Your task to perform on an android device: turn off wifi Image 0: 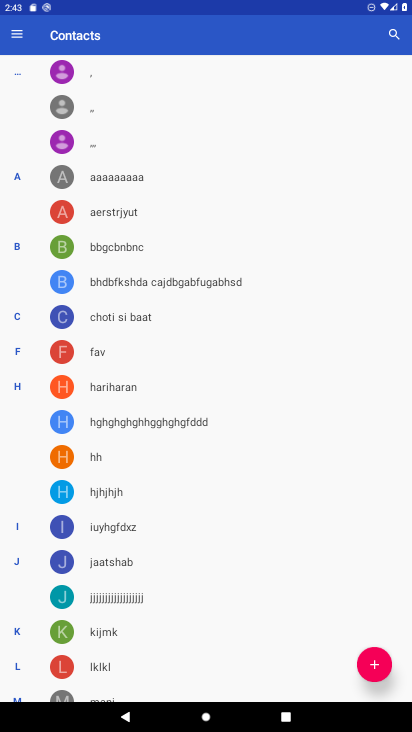
Step 0: press home button
Your task to perform on an android device: turn off wifi Image 1: 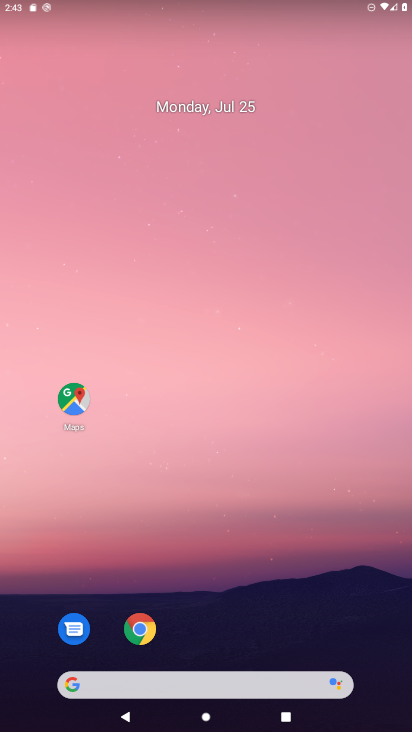
Step 1: drag from (141, 1) to (95, 483)
Your task to perform on an android device: turn off wifi Image 2: 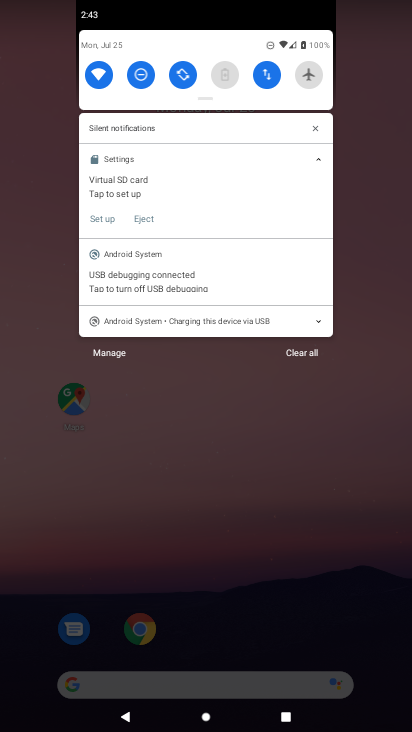
Step 2: click (105, 75)
Your task to perform on an android device: turn off wifi Image 3: 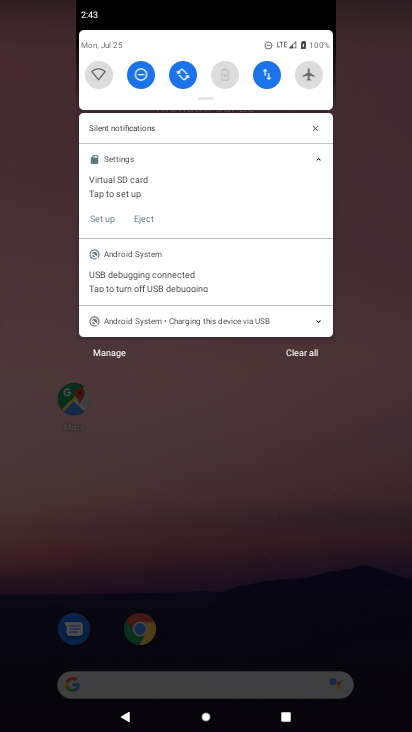
Step 3: task complete